Your task to perform on an android device: turn on priority inbox in the gmail app Image 0: 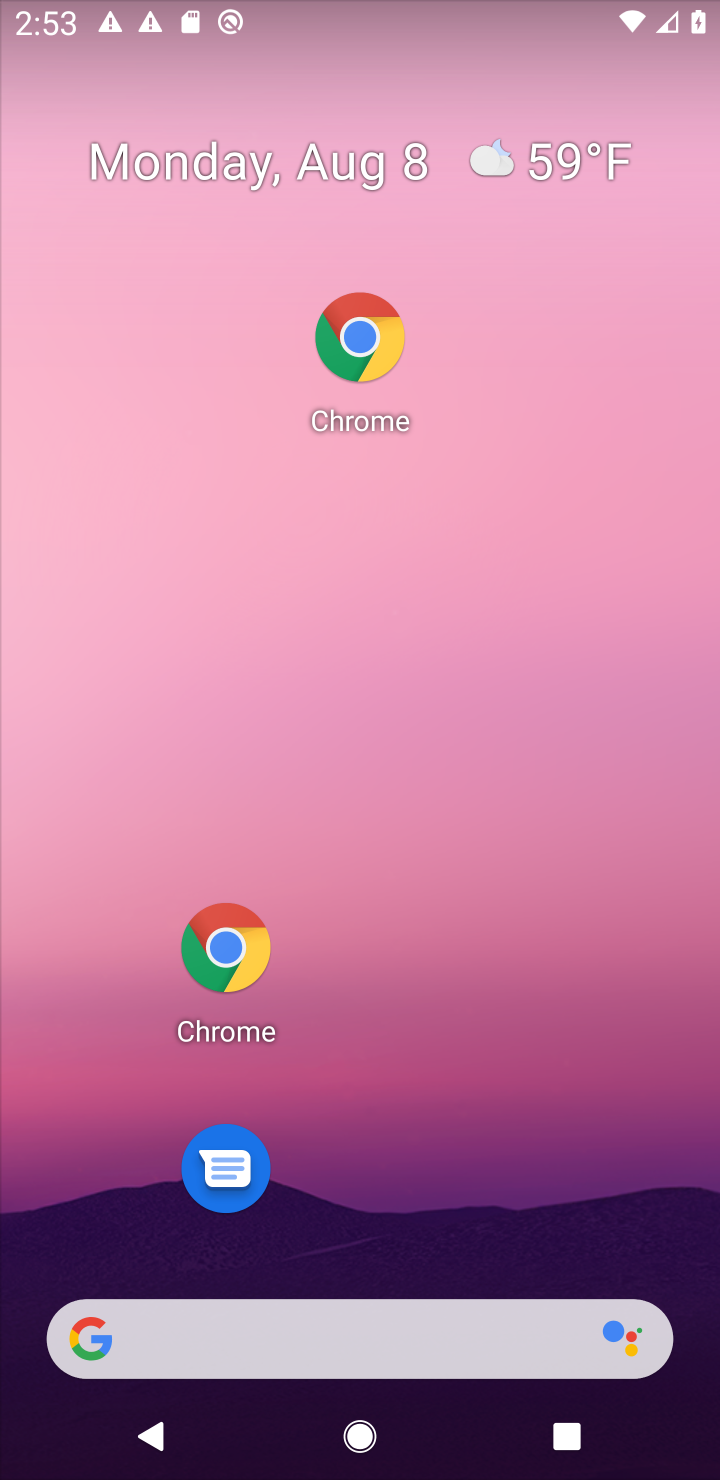
Step 0: drag from (385, 1253) to (565, 77)
Your task to perform on an android device: turn on priority inbox in the gmail app Image 1: 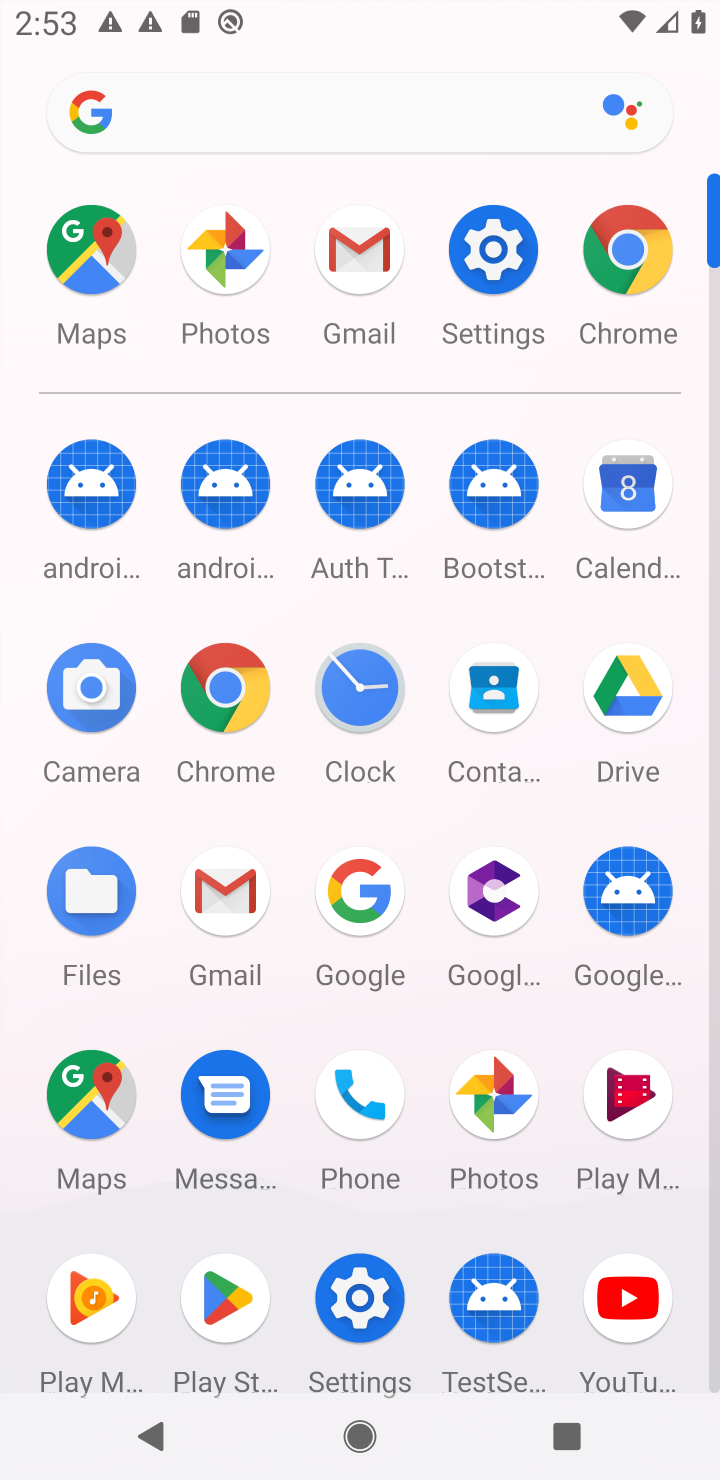
Step 1: click (361, 237)
Your task to perform on an android device: turn on priority inbox in the gmail app Image 2: 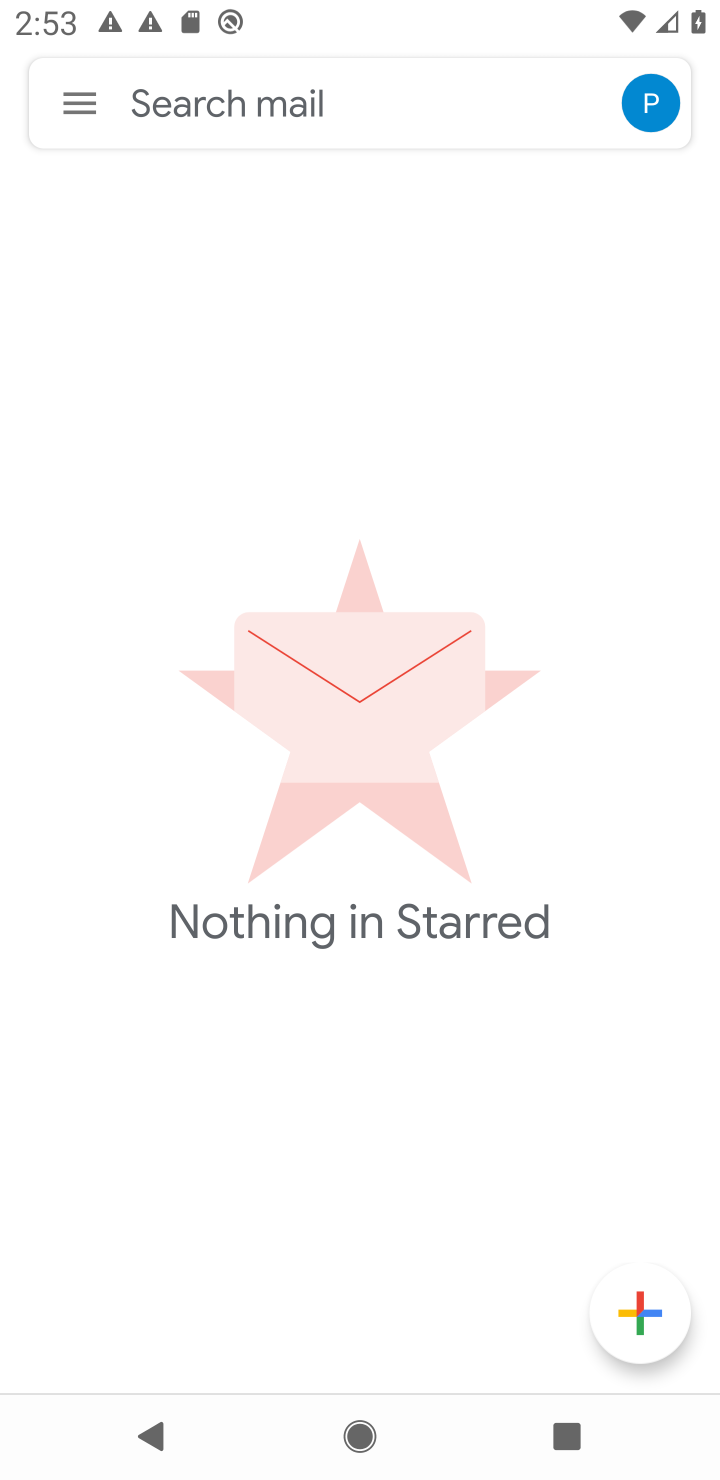
Step 2: task complete